Your task to perform on an android device: Open Google Chrome and open the bookmarks view Image 0: 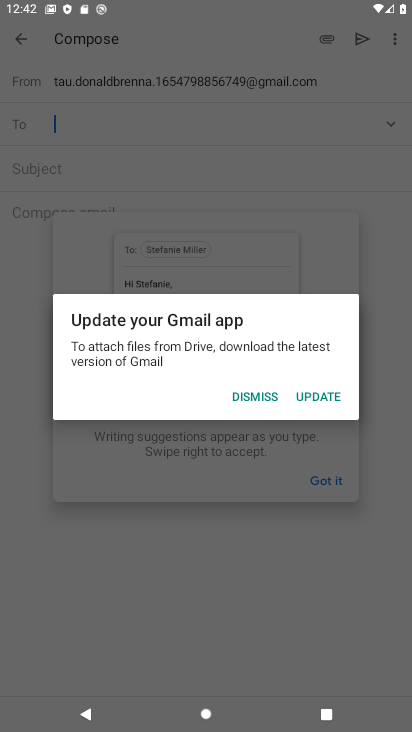
Step 0: press home button
Your task to perform on an android device: Open Google Chrome and open the bookmarks view Image 1: 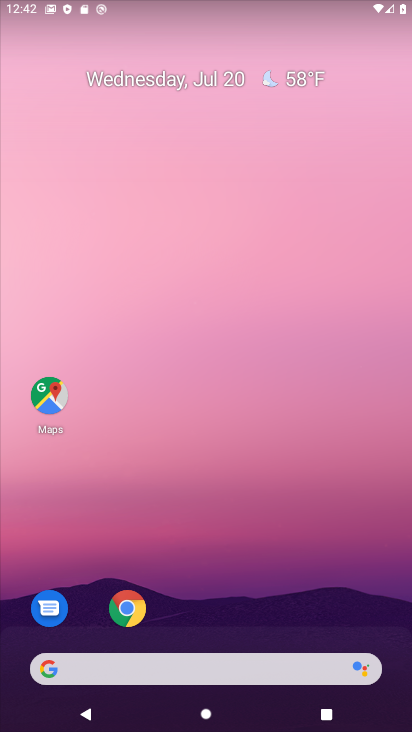
Step 1: click (125, 611)
Your task to perform on an android device: Open Google Chrome and open the bookmarks view Image 2: 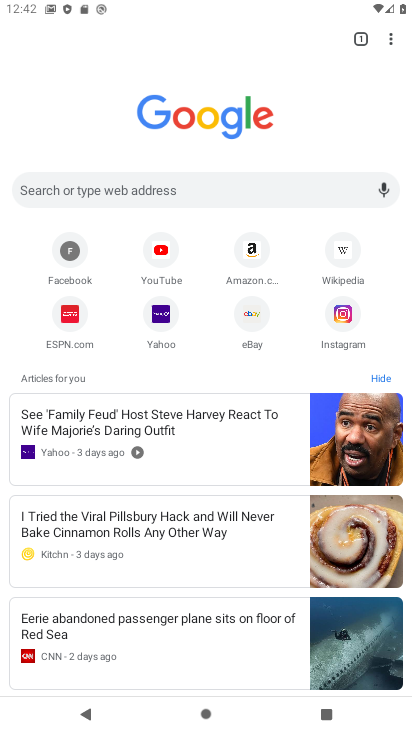
Step 2: click (389, 42)
Your task to perform on an android device: Open Google Chrome and open the bookmarks view Image 3: 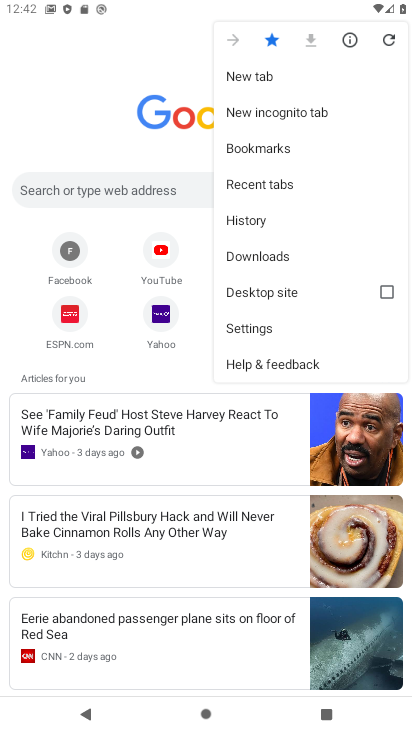
Step 3: click (242, 146)
Your task to perform on an android device: Open Google Chrome and open the bookmarks view Image 4: 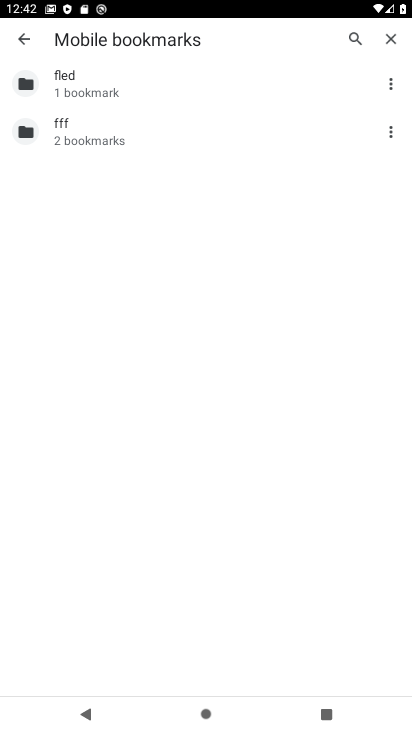
Step 4: task complete